Your task to perform on an android device: Open privacy settings Image 0: 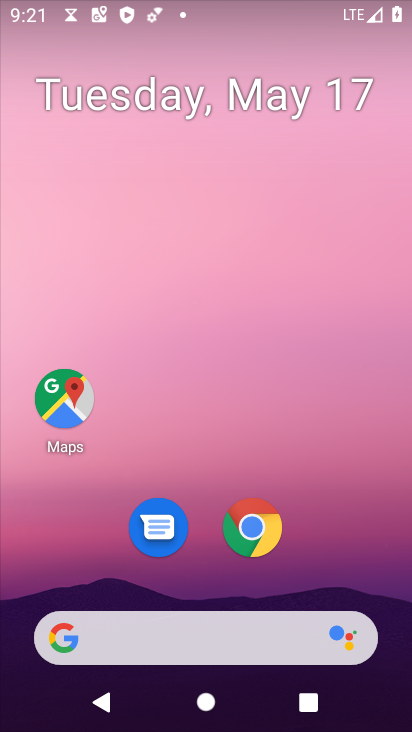
Step 0: press home button
Your task to perform on an android device: Open privacy settings Image 1: 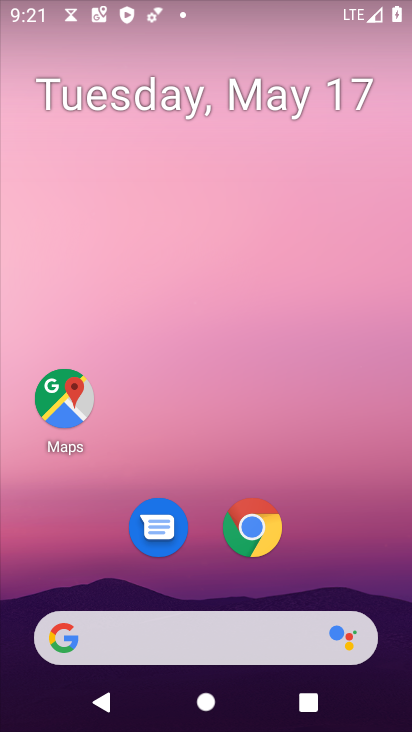
Step 1: drag from (158, 650) to (315, 202)
Your task to perform on an android device: Open privacy settings Image 2: 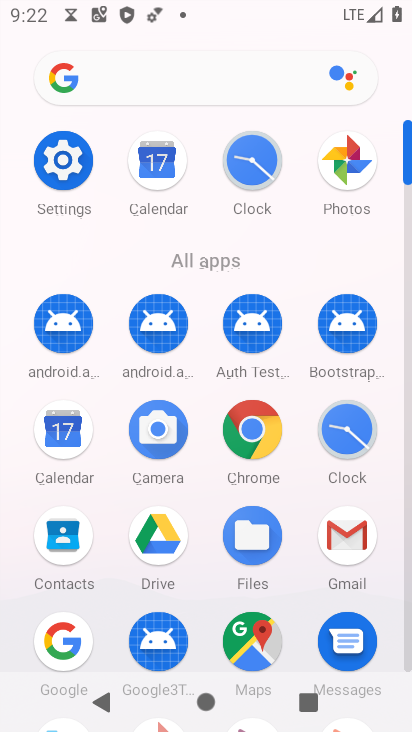
Step 2: click (67, 171)
Your task to perform on an android device: Open privacy settings Image 3: 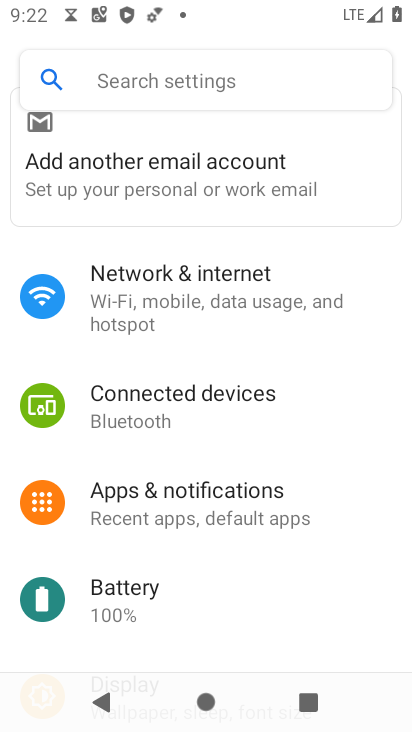
Step 3: drag from (232, 618) to (303, 236)
Your task to perform on an android device: Open privacy settings Image 4: 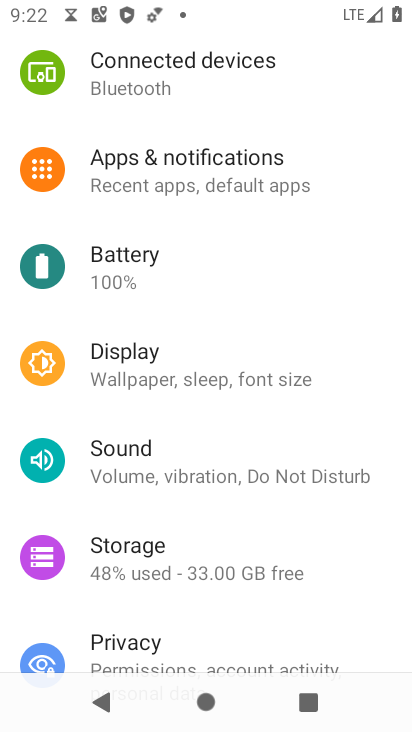
Step 4: click (150, 644)
Your task to perform on an android device: Open privacy settings Image 5: 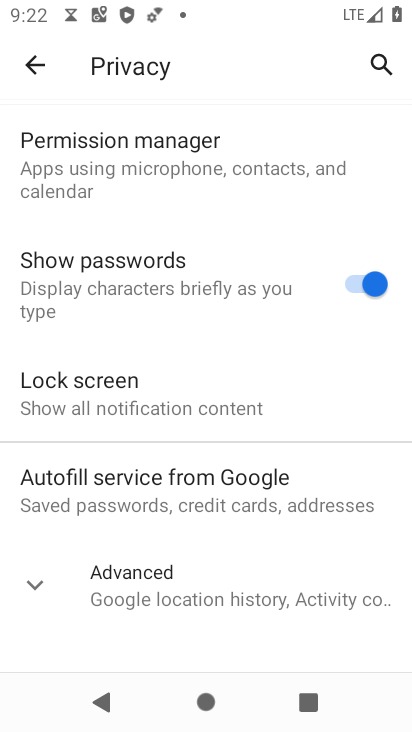
Step 5: task complete